Your task to perform on an android device: Go to Google maps Image 0: 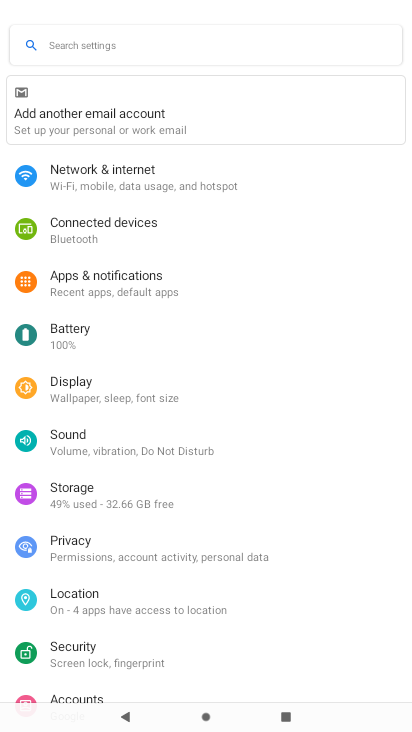
Step 0: press home button
Your task to perform on an android device: Go to Google maps Image 1: 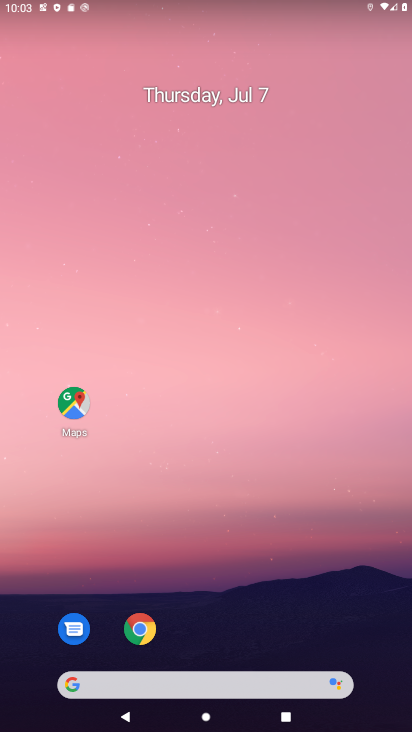
Step 1: click (71, 400)
Your task to perform on an android device: Go to Google maps Image 2: 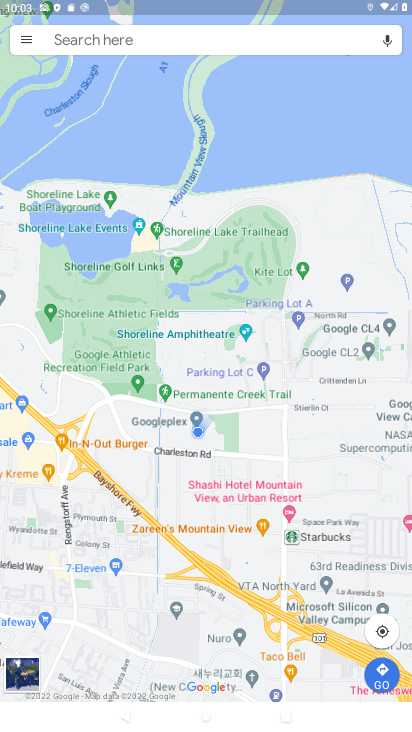
Step 2: task complete